Your task to perform on an android device: Open my contact list Image 0: 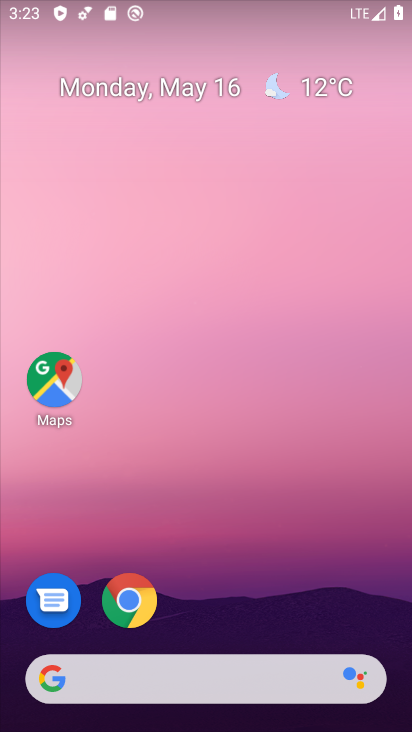
Step 0: drag from (249, 582) to (276, 60)
Your task to perform on an android device: Open my contact list Image 1: 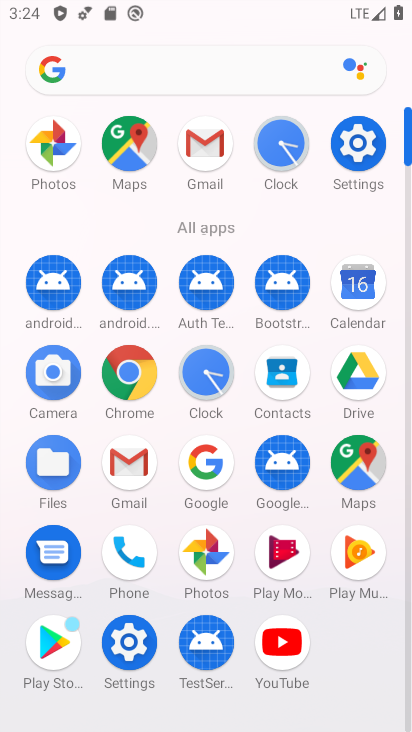
Step 1: click (282, 383)
Your task to perform on an android device: Open my contact list Image 2: 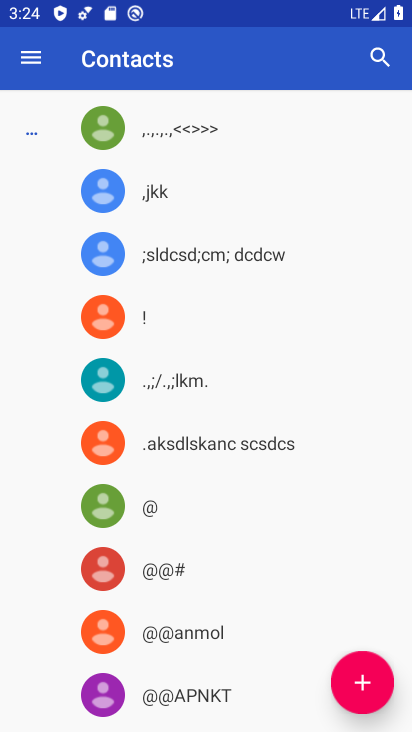
Step 2: task complete